Your task to perform on an android device: toggle priority inbox in the gmail app Image 0: 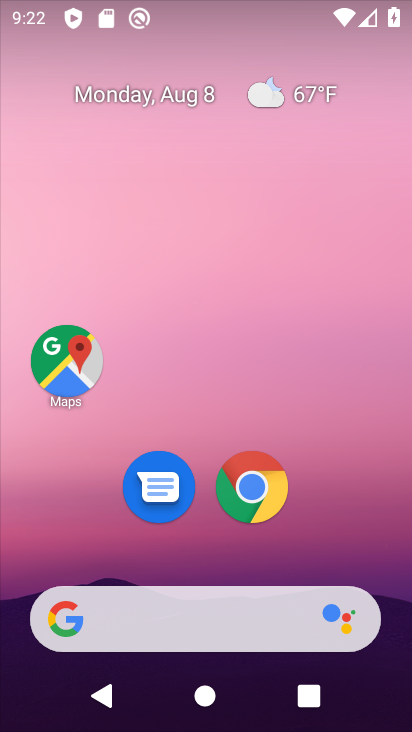
Step 0: drag from (211, 571) to (202, 0)
Your task to perform on an android device: toggle priority inbox in the gmail app Image 1: 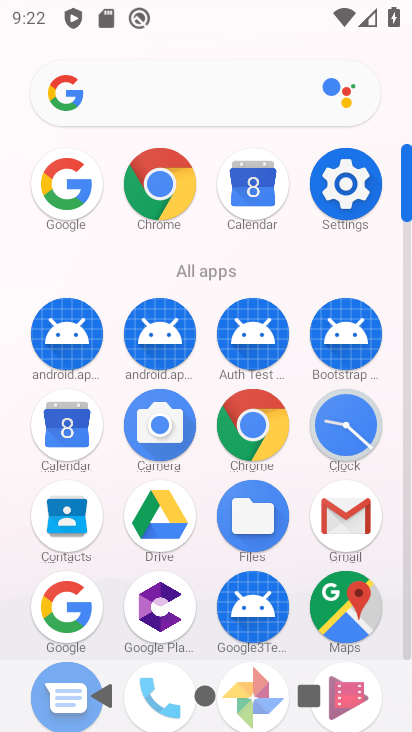
Step 1: click (345, 529)
Your task to perform on an android device: toggle priority inbox in the gmail app Image 2: 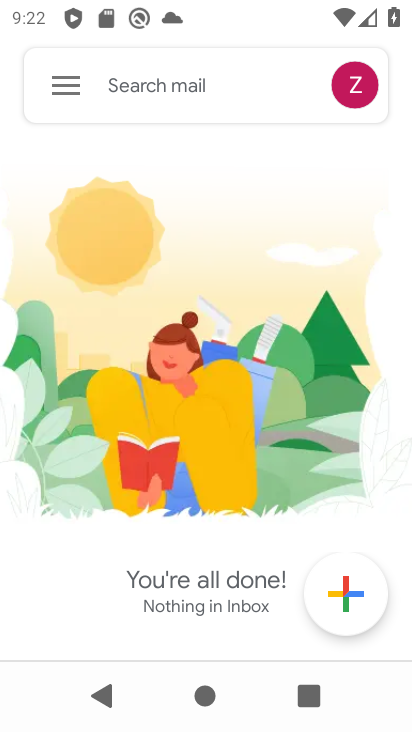
Step 2: click (68, 88)
Your task to perform on an android device: toggle priority inbox in the gmail app Image 3: 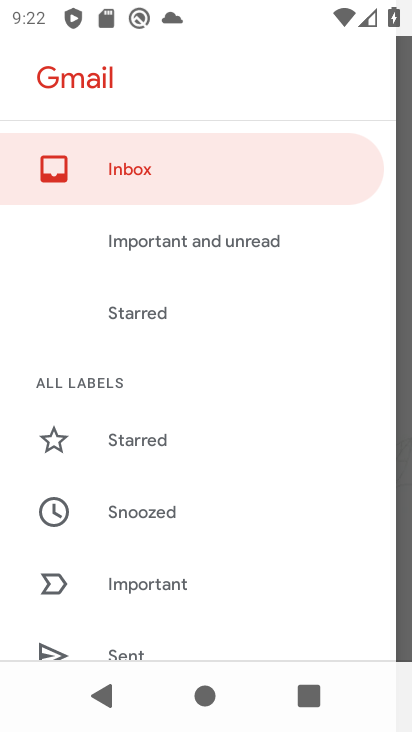
Step 3: drag from (153, 624) to (157, 321)
Your task to perform on an android device: toggle priority inbox in the gmail app Image 4: 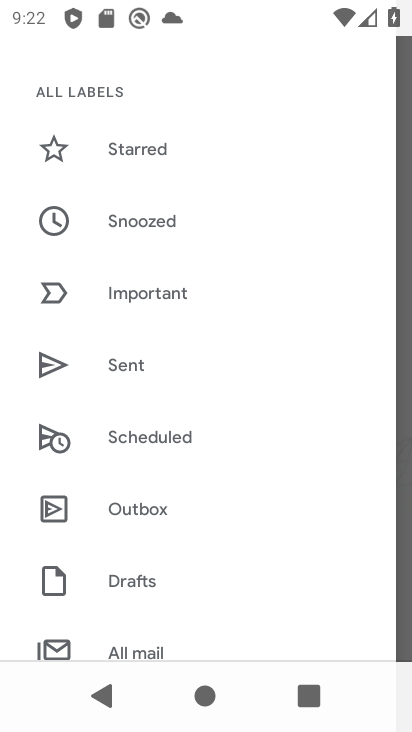
Step 4: drag from (148, 619) to (139, 362)
Your task to perform on an android device: toggle priority inbox in the gmail app Image 5: 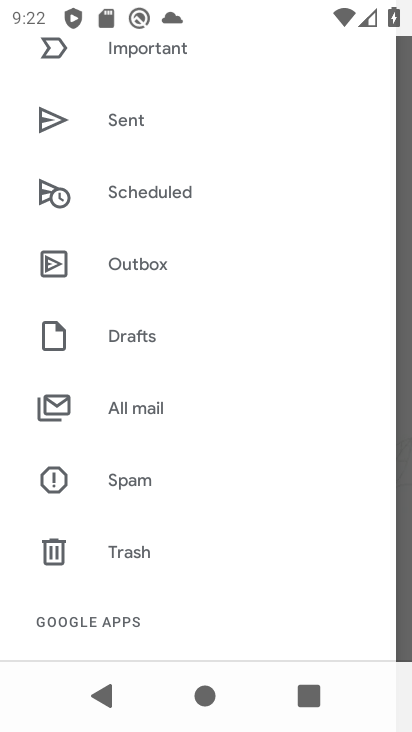
Step 5: drag from (149, 547) to (146, 262)
Your task to perform on an android device: toggle priority inbox in the gmail app Image 6: 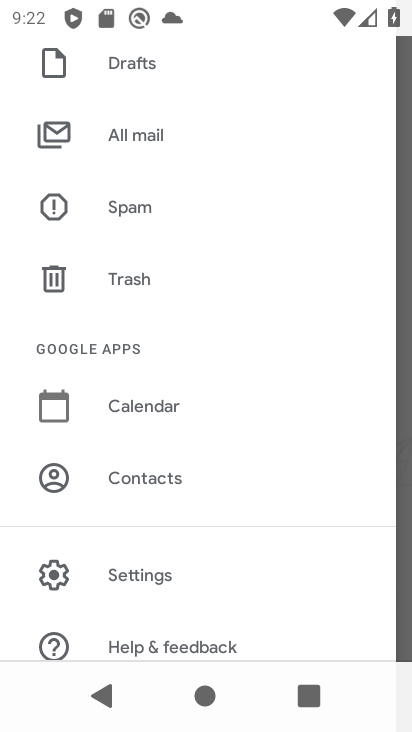
Step 6: click (142, 576)
Your task to perform on an android device: toggle priority inbox in the gmail app Image 7: 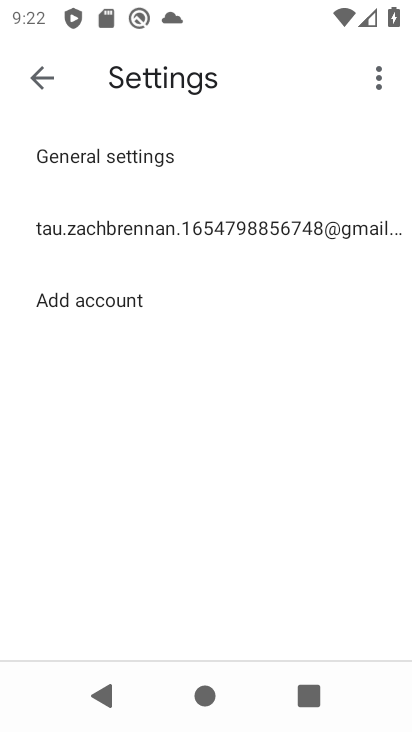
Step 7: click (142, 225)
Your task to perform on an android device: toggle priority inbox in the gmail app Image 8: 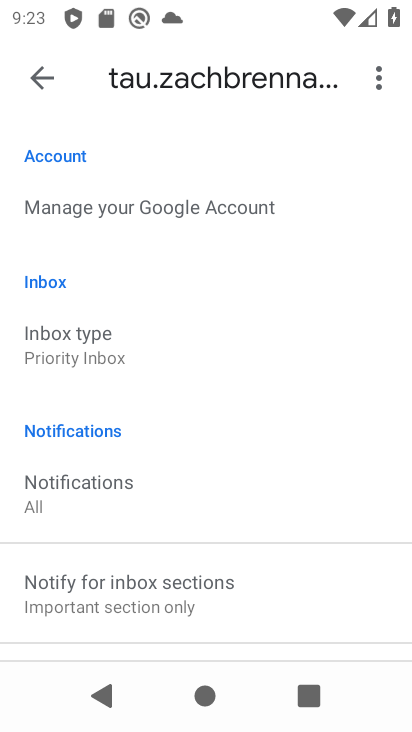
Step 8: click (72, 347)
Your task to perform on an android device: toggle priority inbox in the gmail app Image 9: 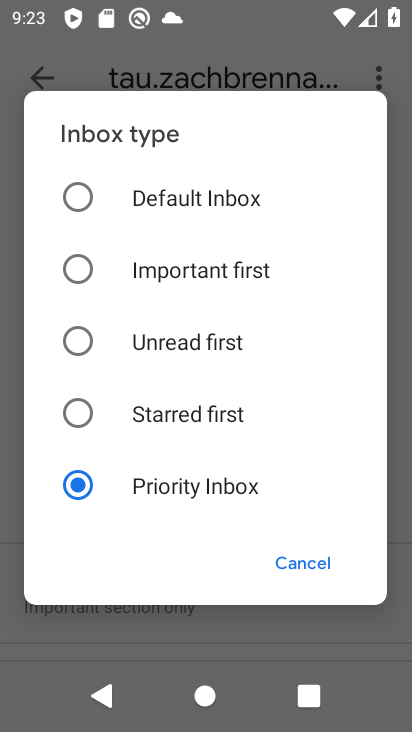
Step 9: click (75, 195)
Your task to perform on an android device: toggle priority inbox in the gmail app Image 10: 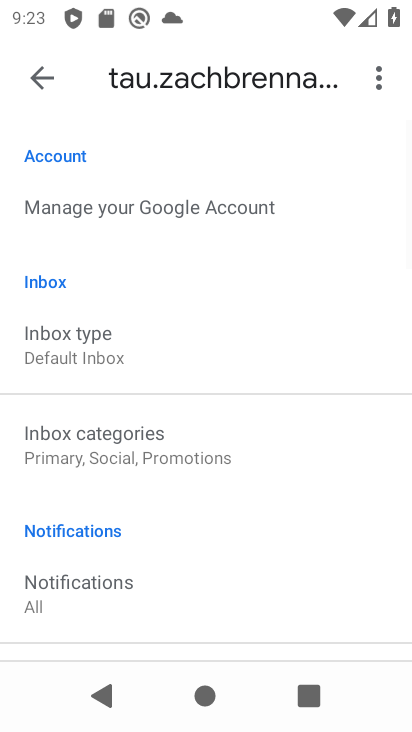
Step 10: task complete